Your task to perform on an android device: change keyboard looks Image 0: 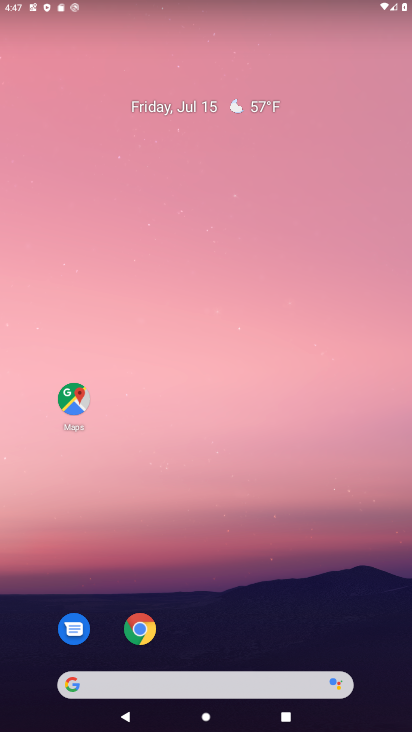
Step 0: press home button
Your task to perform on an android device: change keyboard looks Image 1: 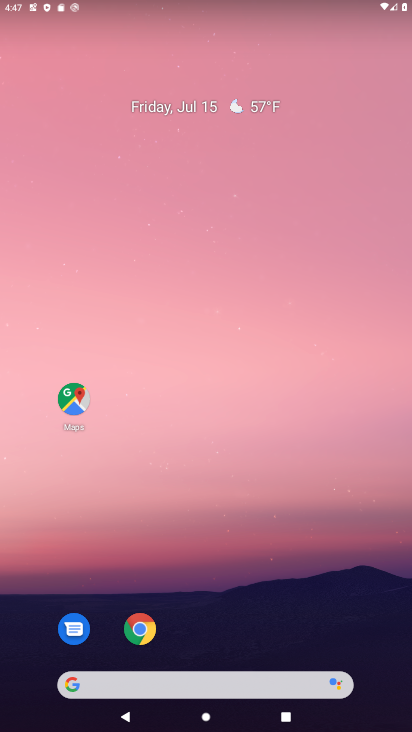
Step 1: drag from (244, 617) to (210, 23)
Your task to perform on an android device: change keyboard looks Image 2: 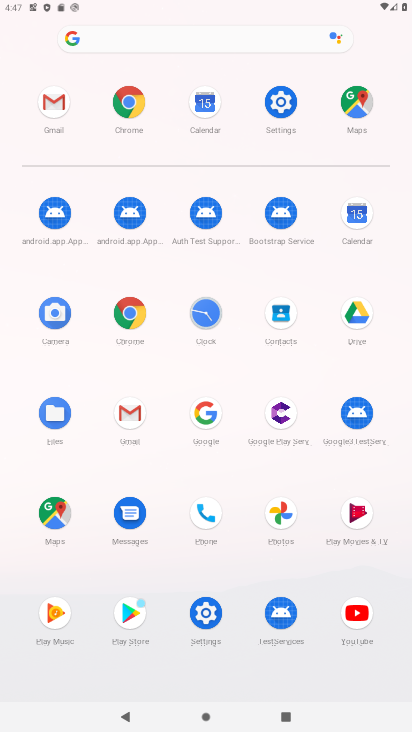
Step 2: click (270, 94)
Your task to perform on an android device: change keyboard looks Image 3: 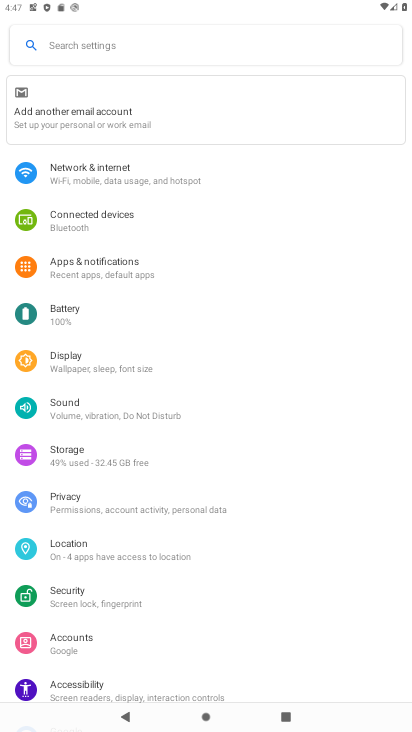
Step 3: drag from (335, 639) to (383, 20)
Your task to perform on an android device: change keyboard looks Image 4: 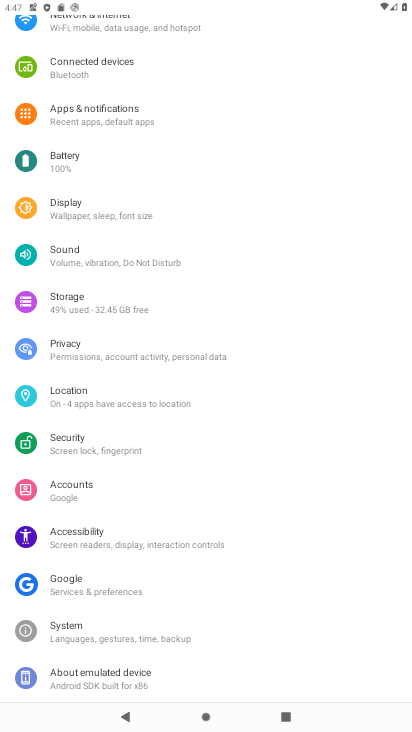
Step 4: click (73, 636)
Your task to perform on an android device: change keyboard looks Image 5: 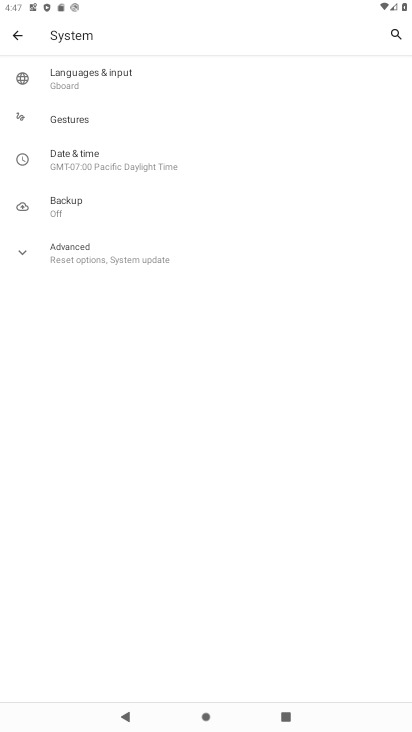
Step 5: click (85, 71)
Your task to perform on an android device: change keyboard looks Image 6: 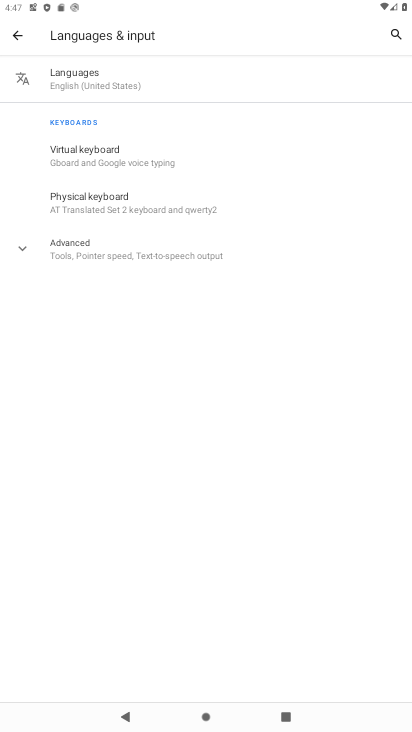
Step 6: click (86, 161)
Your task to perform on an android device: change keyboard looks Image 7: 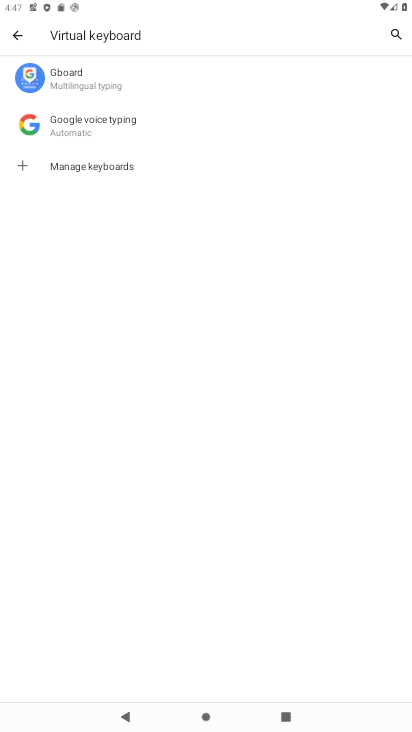
Step 7: click (82, 74)
Your task to perform on an android device: change keyboard looks Image 8: 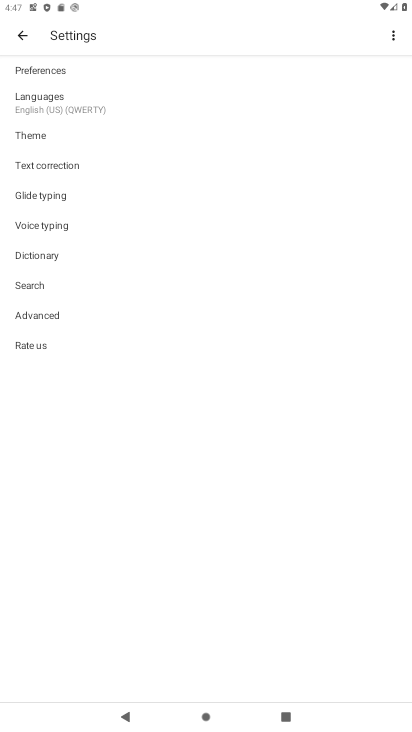
Step 8: click (39, 131)
Your task to perform on an android device: change keyboard looks Image 9: 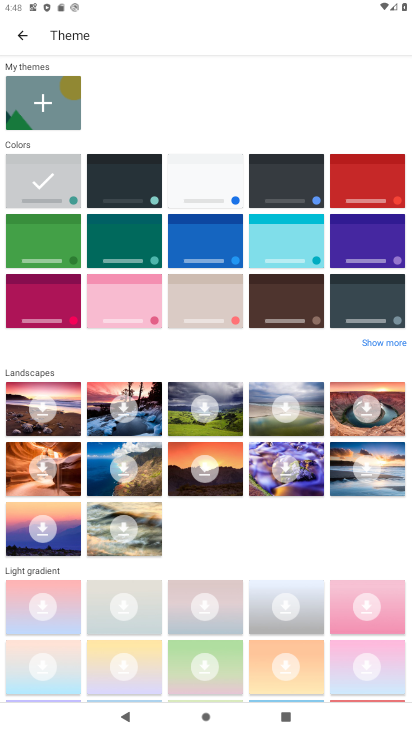
Step 9: click (107, 173)
Your task to perform on an android device: change keyboard looks Image 10: 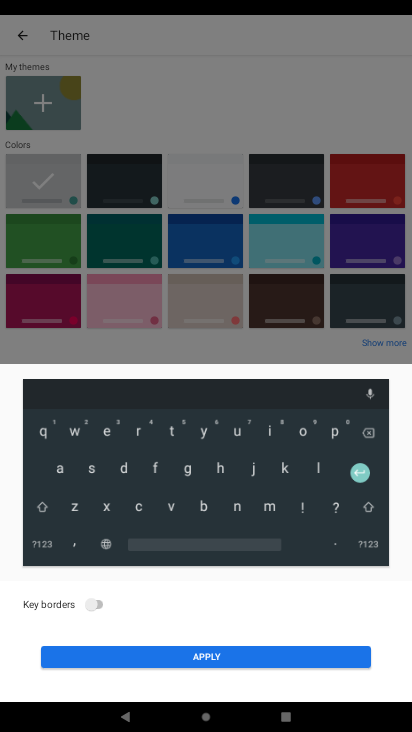
Step 10: click (143, 654)
Your task to perform on an android device: change keyboard looks Image 11: 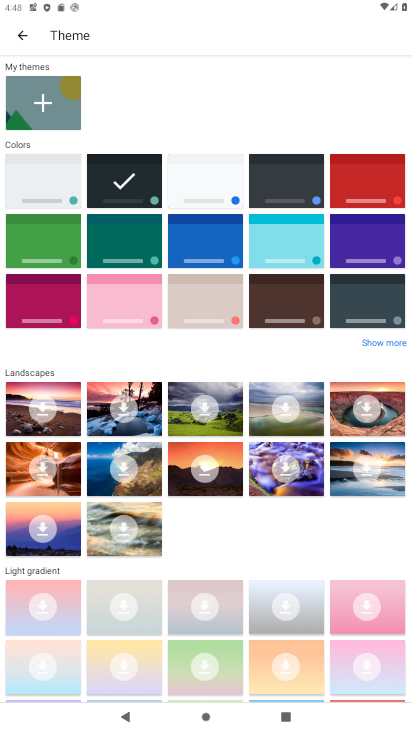
Step 11: task complete